Your task to perform on an android device: Go to Reddit.com Image 0: 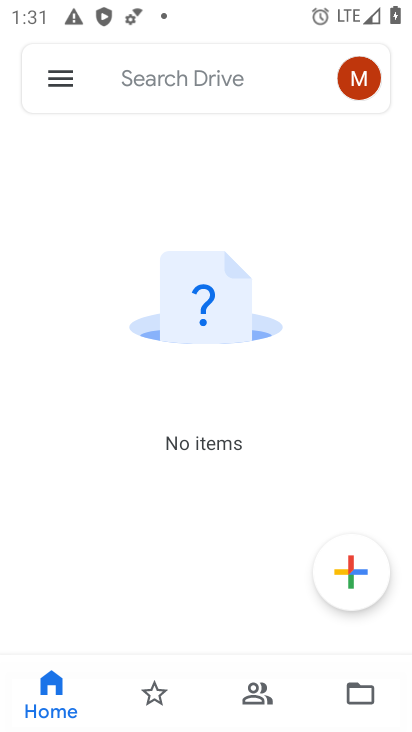
Step 0: press home button
Your task to perform on an android device: Go to Reddit.com Image 1: 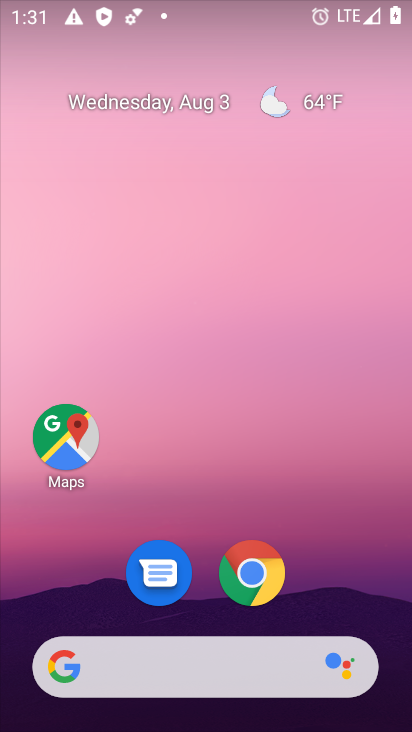
Step 1: drag from (210, 635) to (214, 130)
Your task to perform on an android device: Go to Reddit.com Image 2: 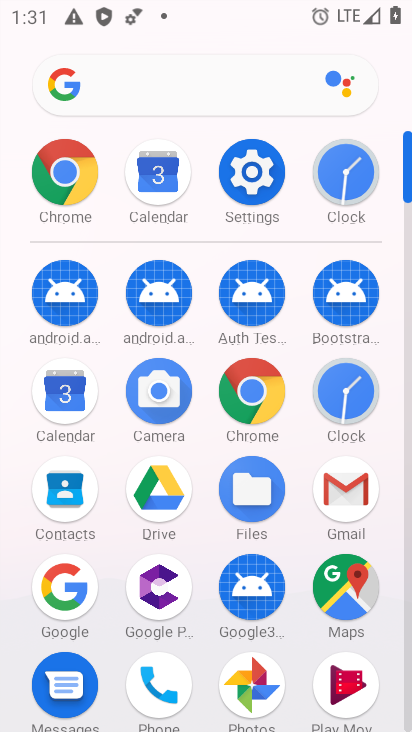
Step 2: drag from (167, 534) to (239, 112)
Your task to perform on an android device: Go to Reddit.com Image 3: 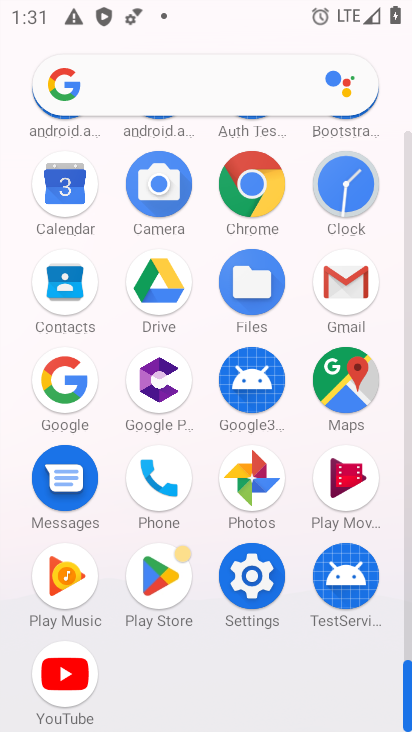
Step 3: click (246, 211)
Your task to perform on an android device: Go to Reddit.com Image 4: 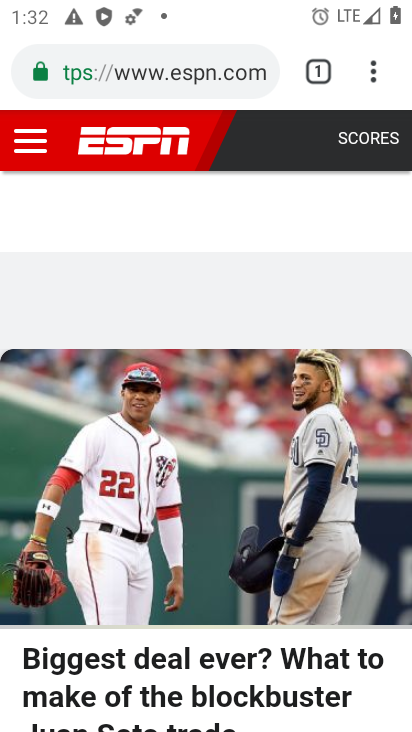
Step 4: click (228, 64)
Your task to perform on an android device: Go to Reddit.com Image 5: 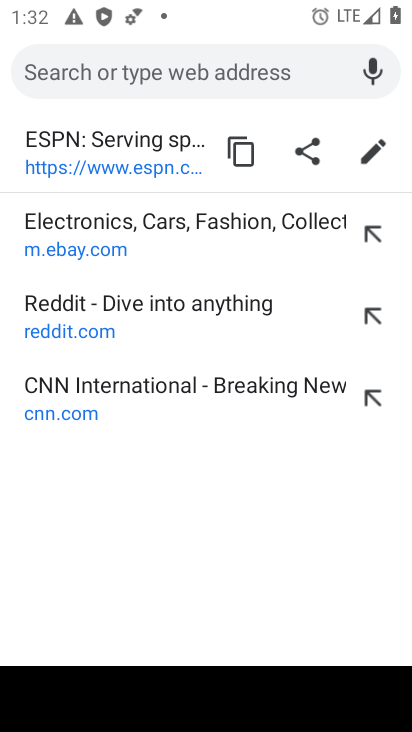
Step 5: type "reddit"
Your task to perform on an android device: Go to Reddit.com Image 6: 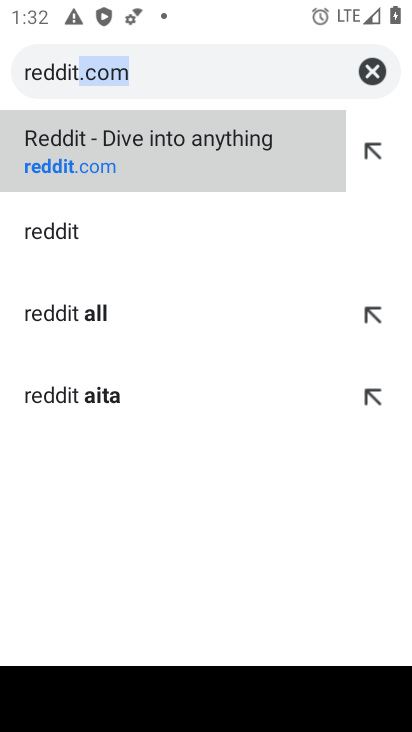
Step 6: click (167, 167)
Your task to perform on an android device: Go to Reddit.com Image 7: 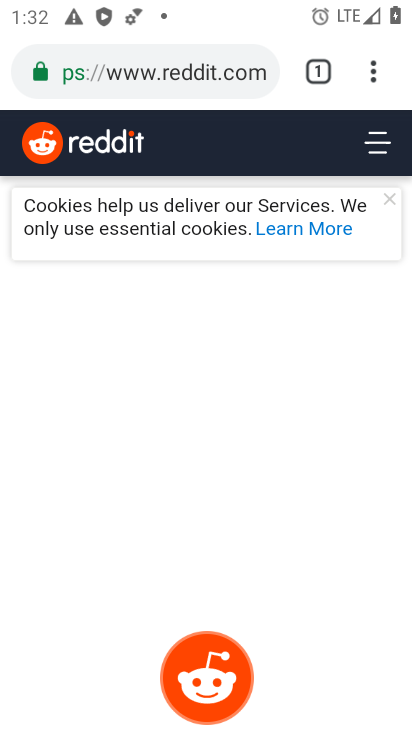
Step 7: task complete